Your task to perform on an android device: Toggle the flashlight Image 0: 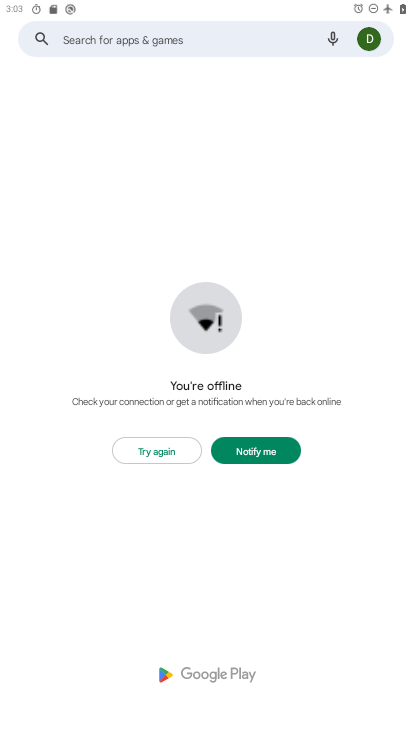
Step 0: press home button
Your task to perform on an android device: Toggle the flashlight Image 1: 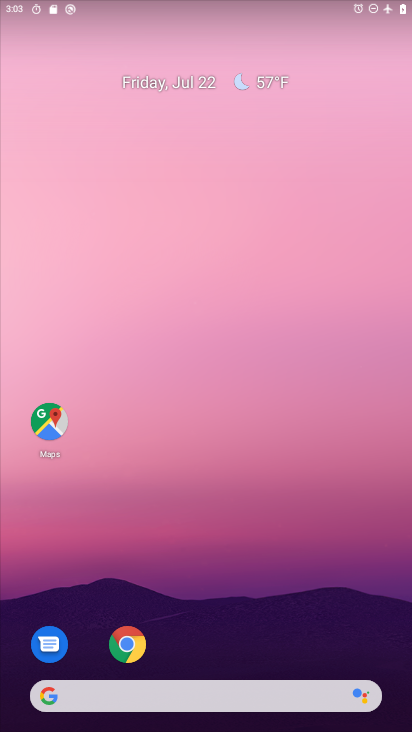
Step 1: drag from (215, 620) to (233, 257)
Your task to perform on an android device: Toggle the flashlight Image 2: 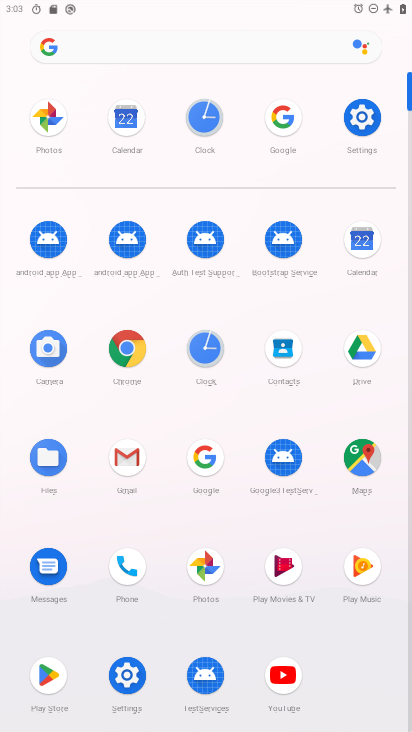
Step 2: click (355, 124)
Your task to perform on an android device: Toggle the flashlight Image 3: 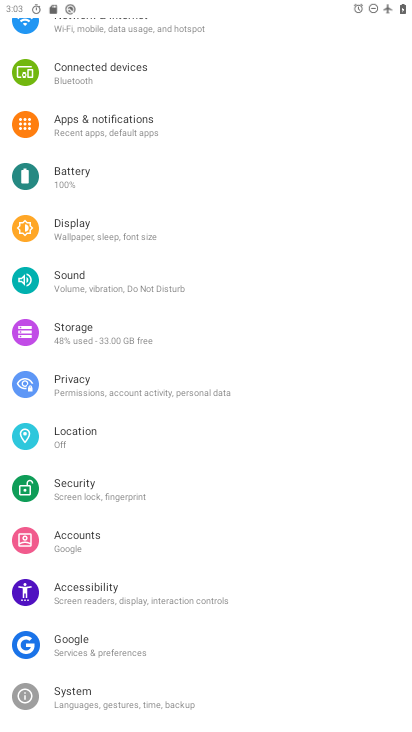
Step 3: task complete